Your task to perform on an android device: Open maps Image 0: 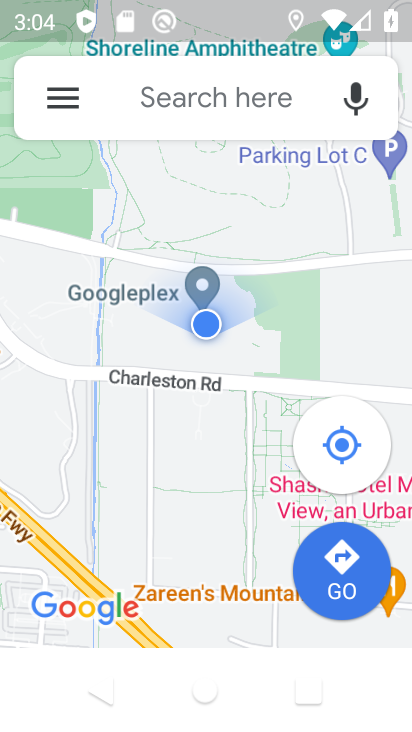
Step 0: task complete